Your task to perform on an android device: Show the shopping cart on newegg.com. Search for logitech g502 on newegg.com, select the first entry, and add it to the cart. Image 0: 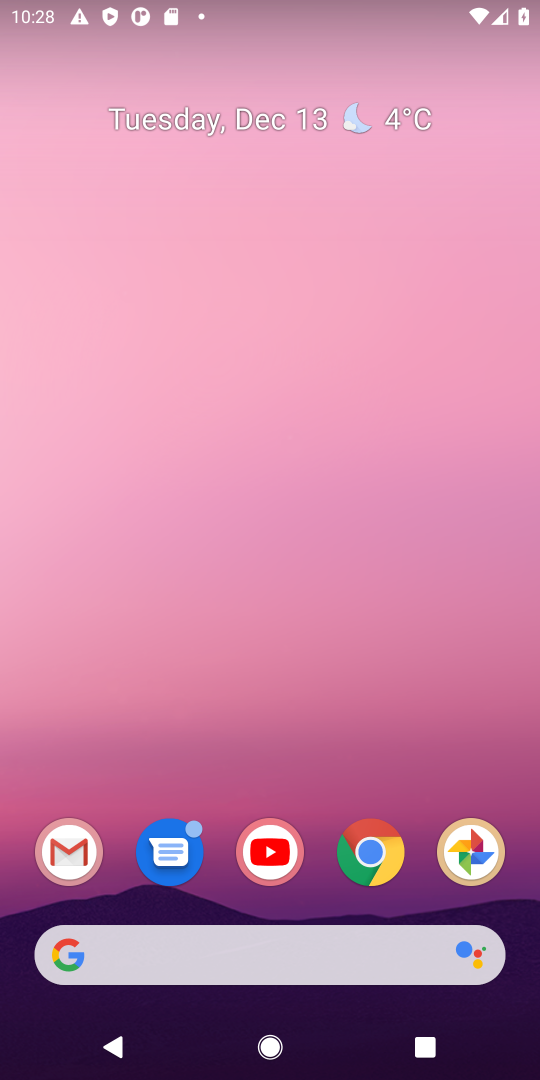
Step 0: click (97, 957)
Your task to perform on an android device: Show the shopping cart on newegg.com. Search for logitech g502 on newegg.com, select the first entry, and add it to the cart. Image 1: 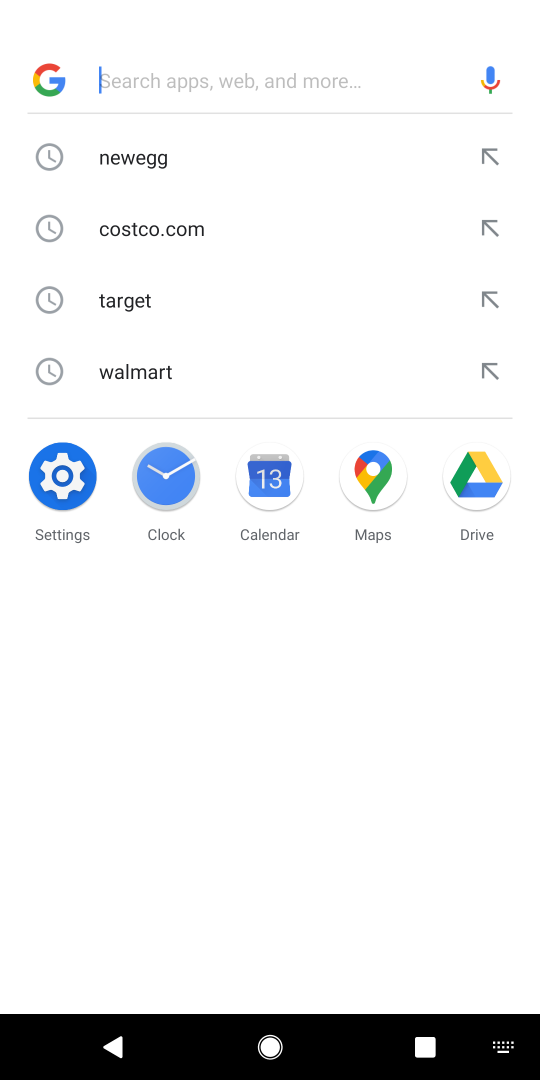
Step 1: type "newegg.com"
Your task to perform on an android device: Show the shopping cart on newegg.com. Search for logitech g502 on newegg.com, select the first entry, and add it to the cart. Image 2: 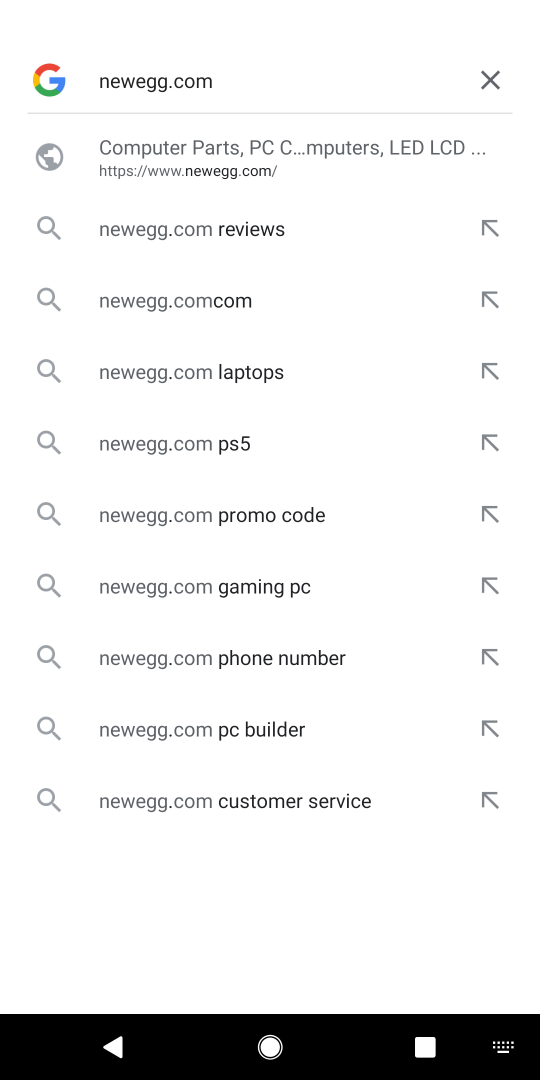
Step 2: press enter
Your task to perform on an android device: Show the shopping cart on newegg.com. Search for logitech g502 on newegg.com, select the first entry, and add it to the cart. Image 3: 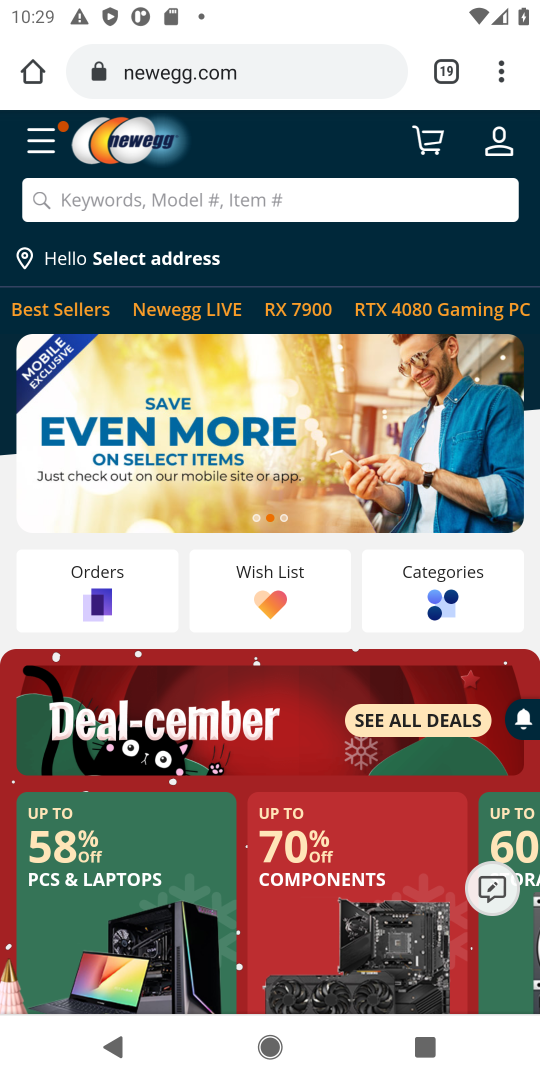
Step 3: click (499, 147)
Your task to perform on an android device: Show the shopping cart on newegg.com. Search for logitech g502 on newegg.com, select the first entry, and add it to the cart. Image 4: 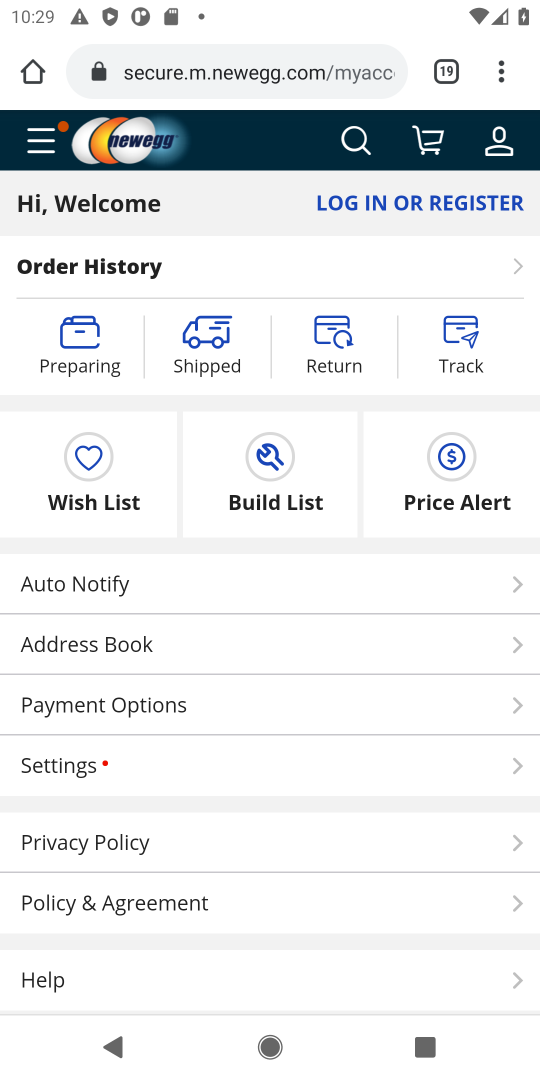
Step 4: press back button
Your task to perform on an android device: Show the shopping cart on newegg.com. Search for logitech g502 on newegg.com, select the first entry, and add it to the cart. Image 5: 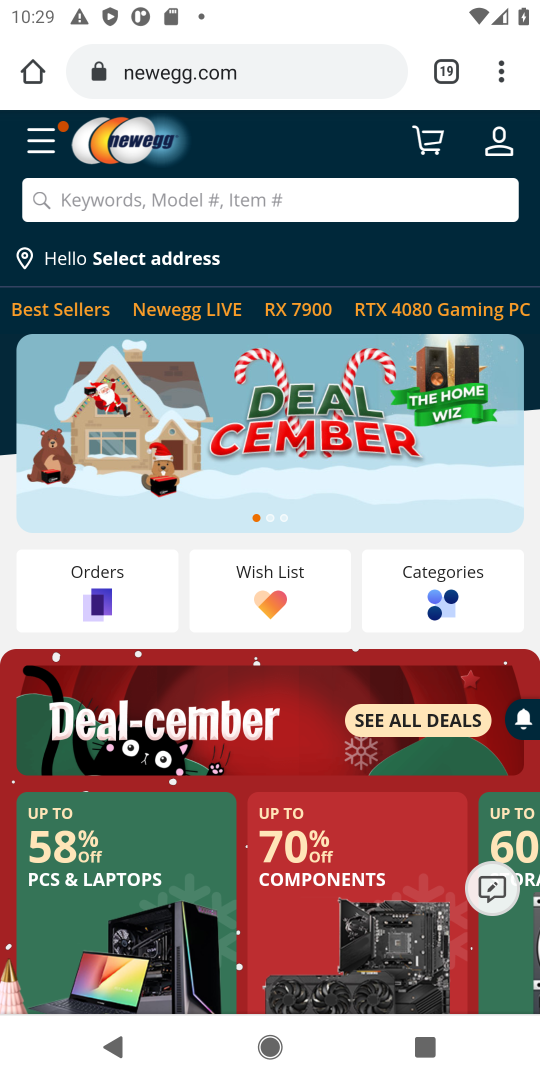
Step 5: click (429, 143)
Your task to perform on an android device: Show the shopping cart on newegg.com. Search for logitech g502 on newegg.com, select the first entry, and add it to the cart. Image 6: 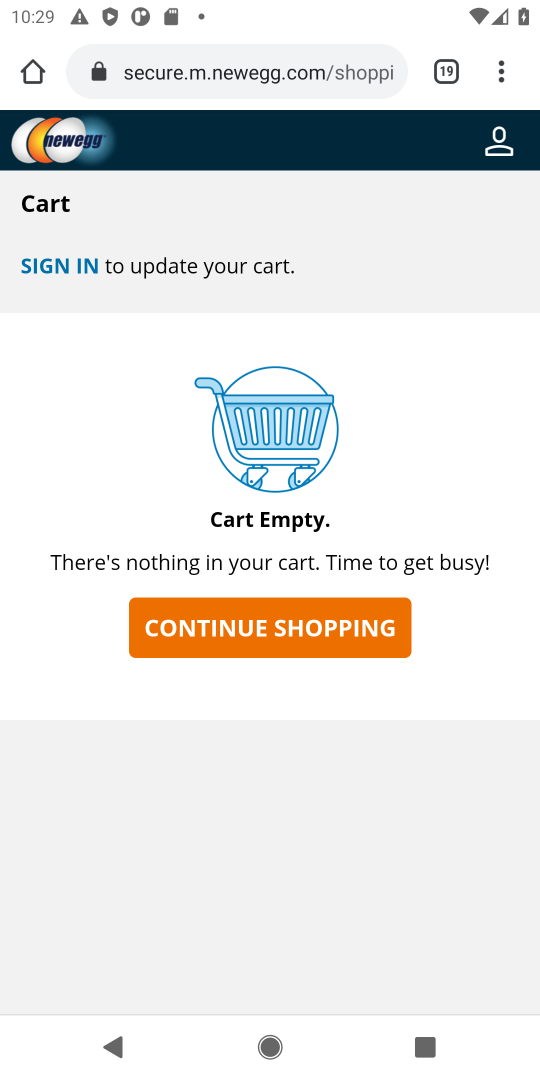
Step 6: press back button
Your task to perform on an android device: Show the shopping cart on newegg.com. Search for logitech g502 on newegg.com, select the first entry, and add it to the cart. Image 7: 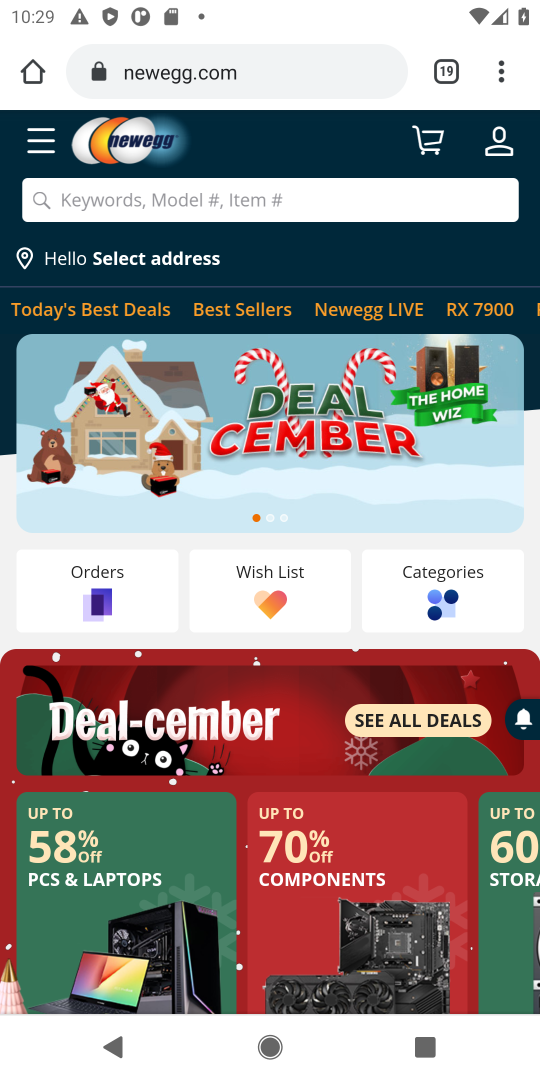
Step 7: click (273, 193)
Your task to perform on an android device: Show the shopping cart on newegg.com. Search for logitech g502 on newegg.com, select the first entry, and add it to the cart. Image 8: 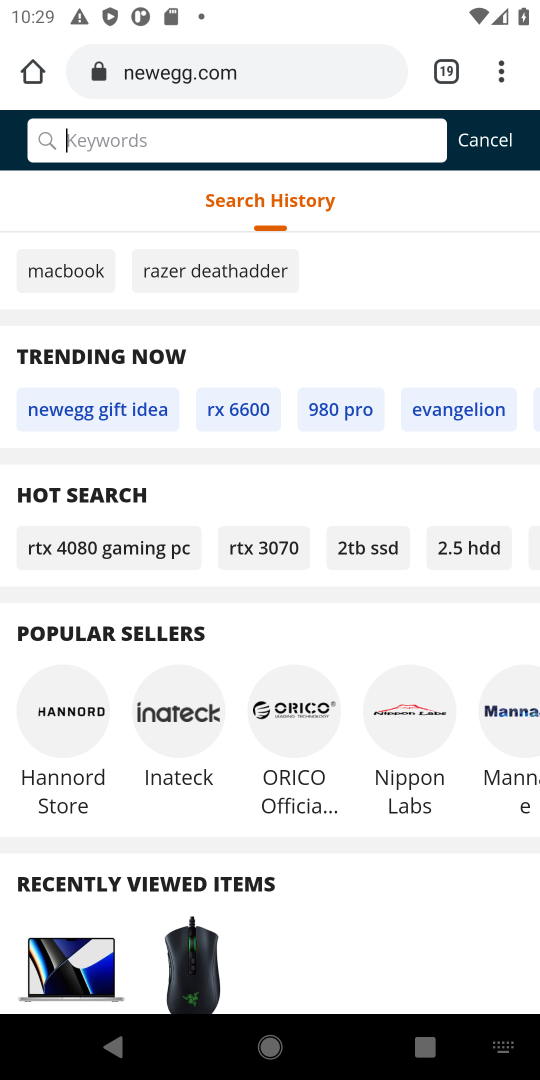
Step 8: type "logitech g502"
Your task to perform on an android device: Show the shopping cart on newegg.com. Search for logitech g502 on newegg.com, select the first entry, and add it to the cart. Image 9: 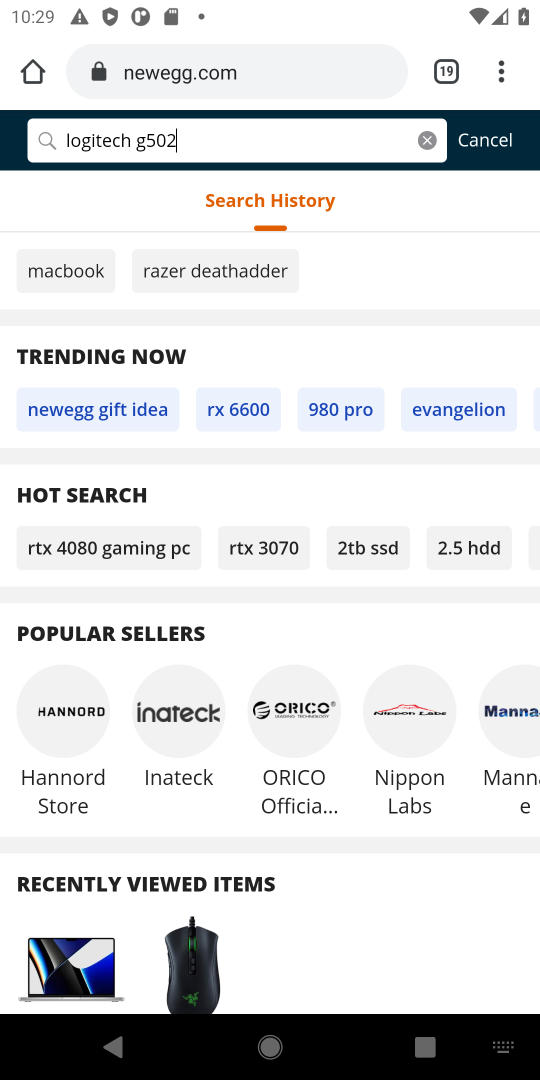
Step 9: press enter
Your task to perform on an android device: Show the shopping cart on newegg.com. Search for logitech g502 on newegg.com, select the first entry, and add it to the cart. Image 10: 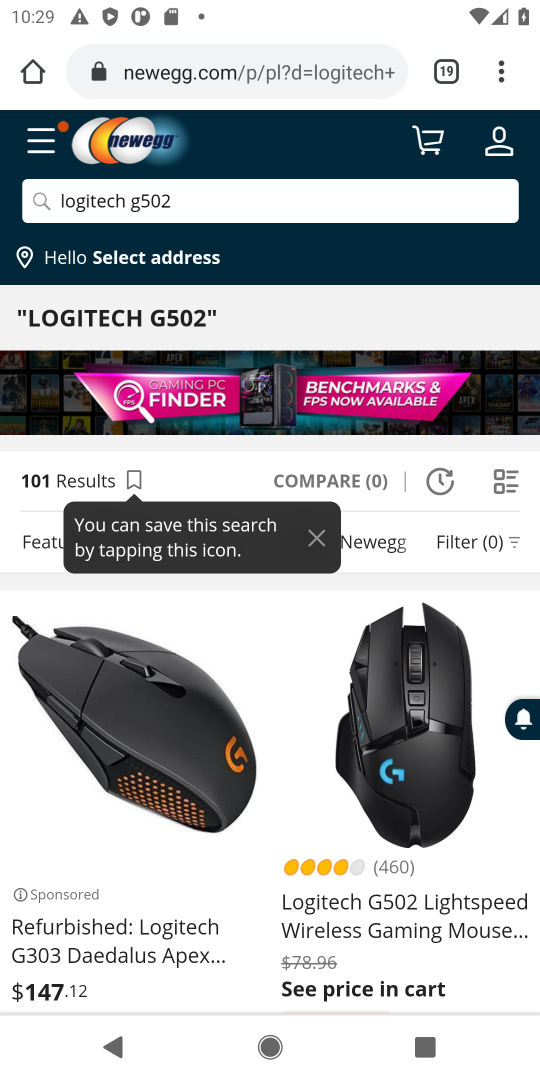
Step 10: drag from (340, 944) to (387, 564)
Your task to perform on an android device: Show the shopping cart on newegg.com. Search for logitech g502 on newegg.com, select the first entry, and add it to the cart. Image 11: 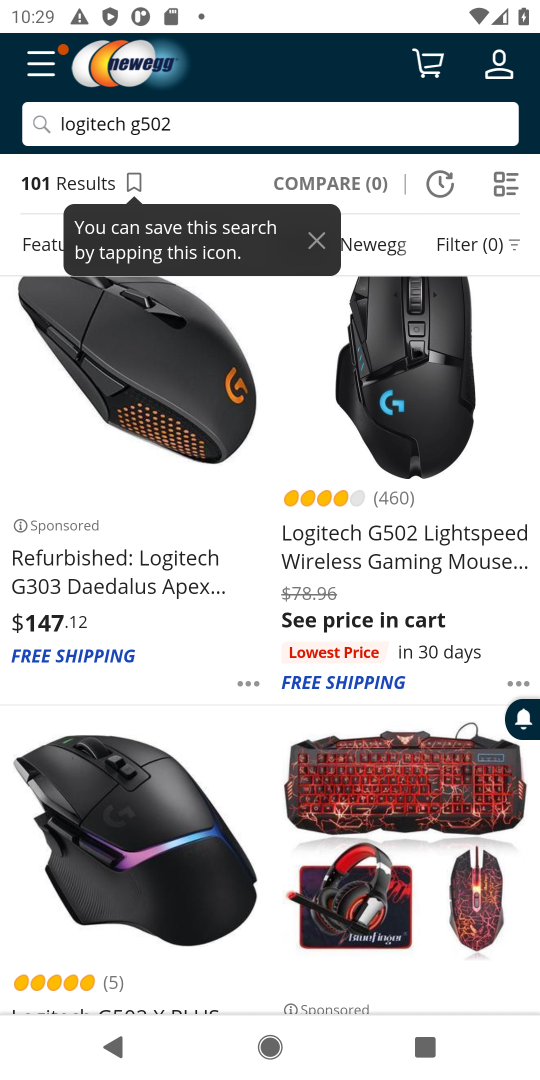
Step 11: click (384, 520)
Your task to perform on an android device: Show the shopping cart on newegg.com. Search for logitech g502 on newegg.com, select the first entry, and add it to the cart. Image 12: 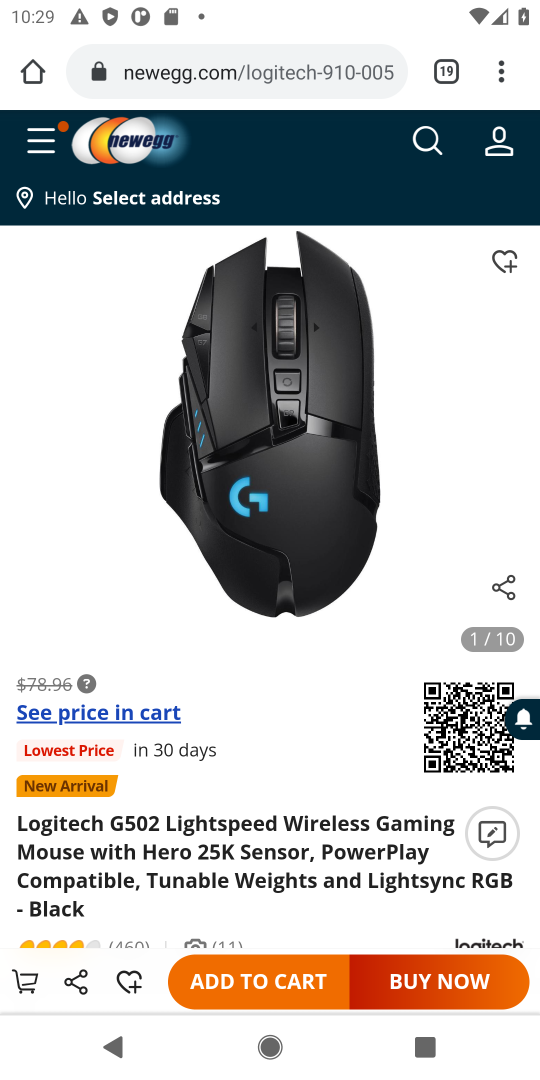
Step 12: click (236, 987)
Your task to perform on an android device: Show the shopping cart on newegg.com. Search for logitech g502 on newegg.com, select the first entry, and add it to the cart. Image 13: 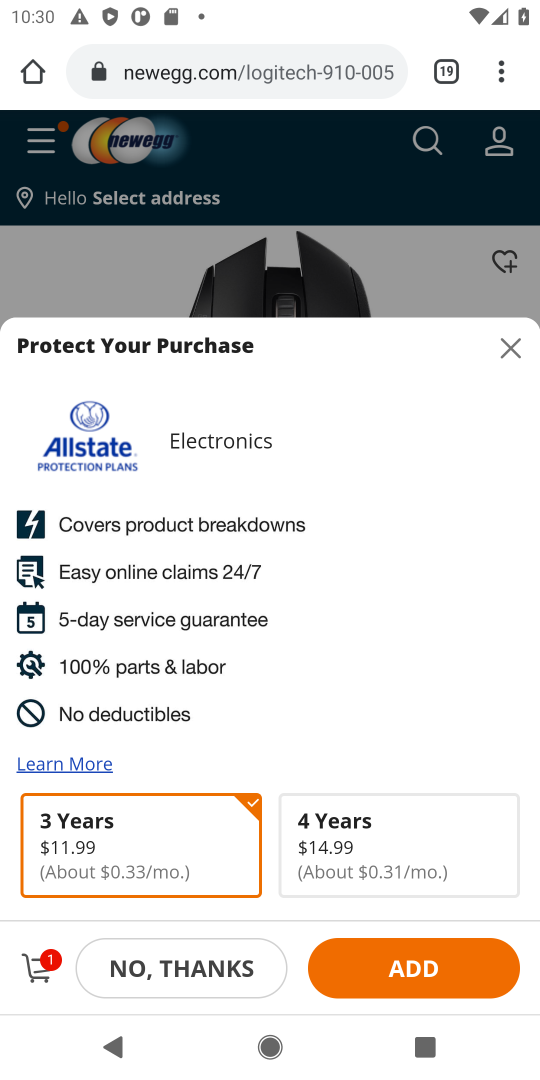
Step 13: task complete